Your task to perform on an android device: turn on notifications settings in the gmail app Image 0: 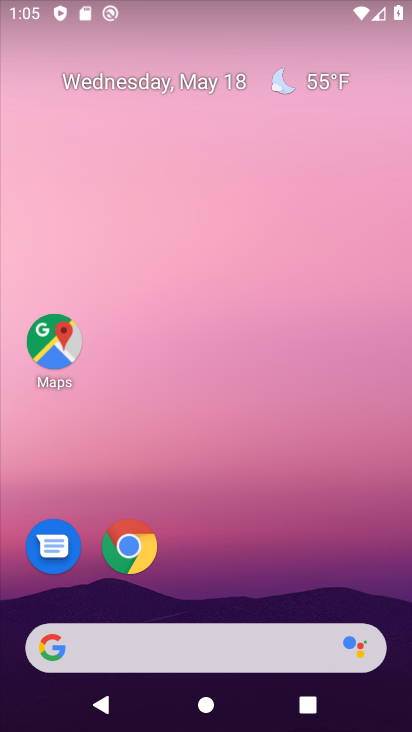
Step 0: drag from (239, 553) to (261, 180)
Your task to perform on an android device: turn on notifications settings in the gmail app Image 1: 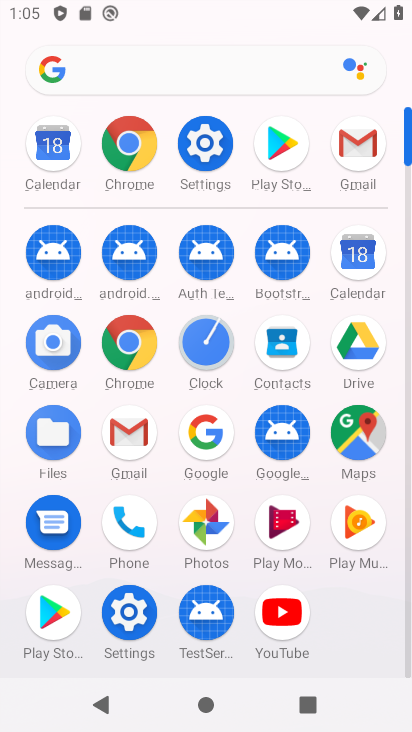
Step 1: click (144, 449)
Your task to perform on an android device: turn on notifications settings in the gmail app Image 2: 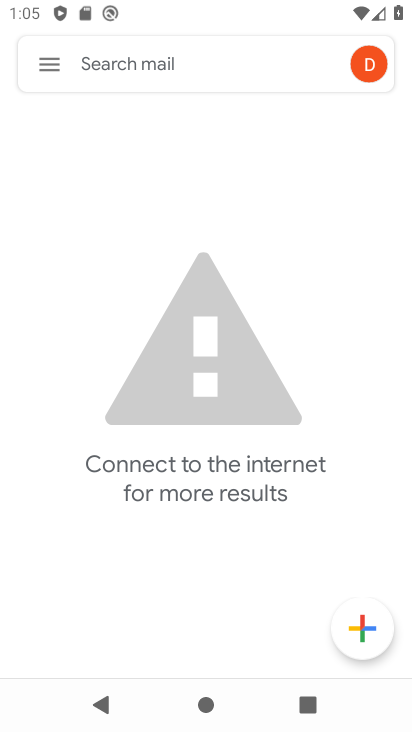
Step 2: click (53, 74)
Your task to perform on an android device: turn on notifications settings in the gmail app Image 3: 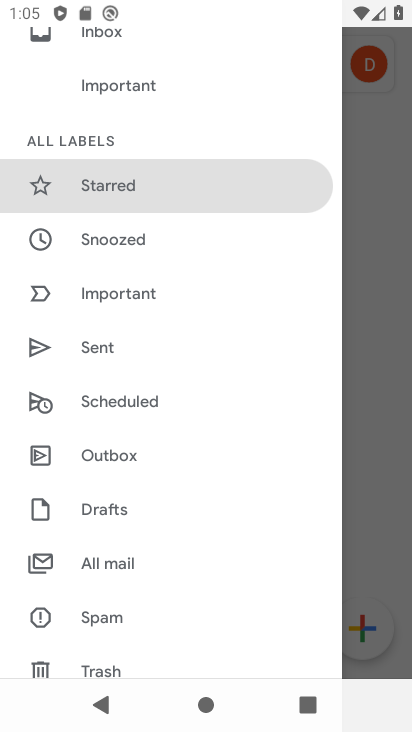
Step 3: drag from (166, 564) to (241, 234)
Your task to perform on an android device: turn on notifications settings in the gmail app Image 4: 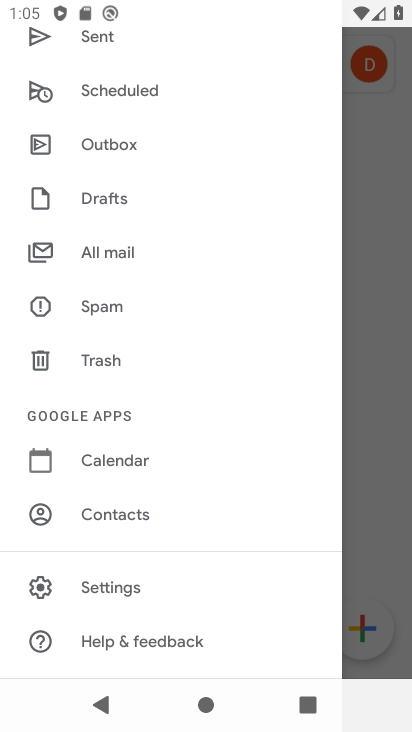
Step 4: click (144, 590)
Your task to perform on an android device: turn on notifications settings in the gmail app Image 5: 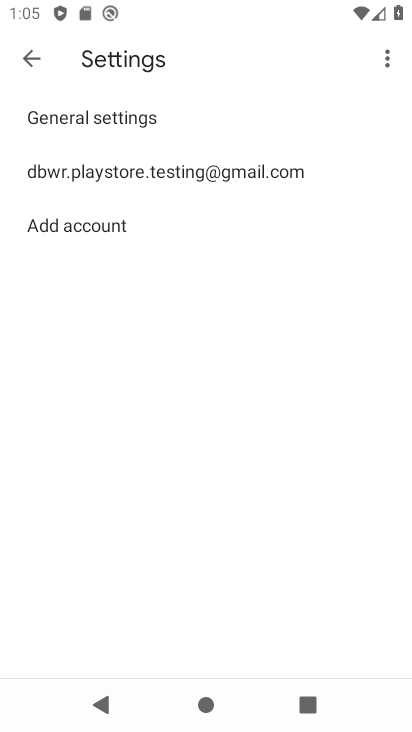
Step 5: click (170, 165)
Your task to perform on an android device: turn on notifications settings in the gmail app Image 6: 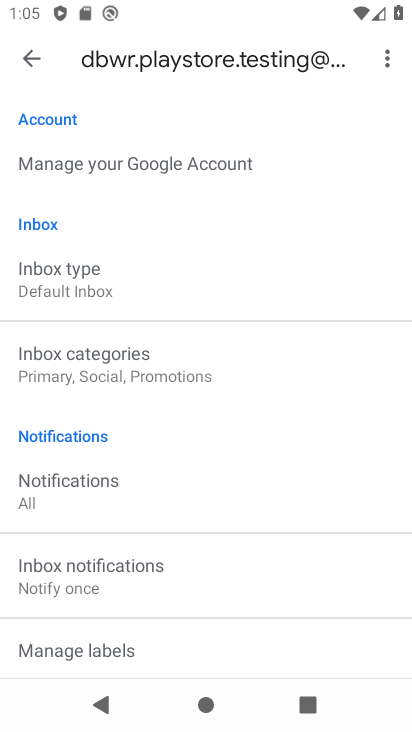
Step 6: task complete